Your task to perform on an android device: Open notification settings Image 0: 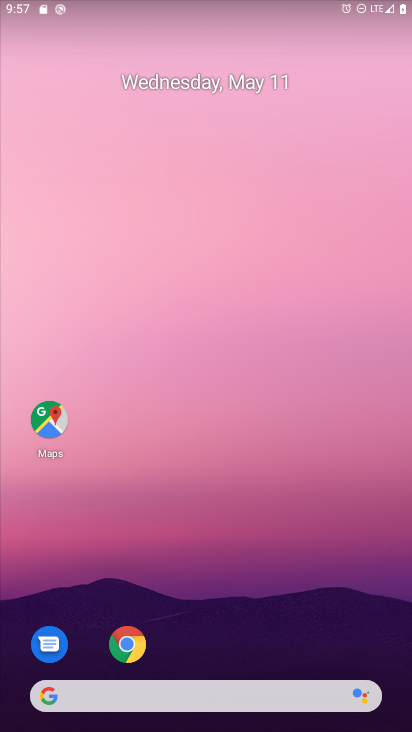
Step 0: drag from (218, 551) to (141, 83)
Your task to perform on an android device: Open notification settings Image 1: 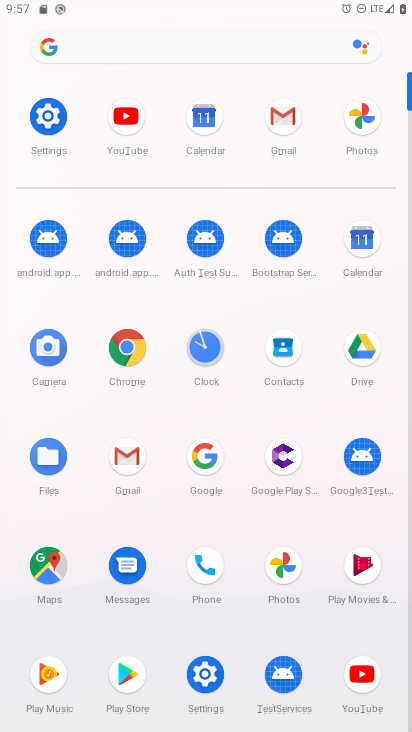
Step 1: click (50, 106)
Your task to perform on an android device: Open notification settings Image 2: 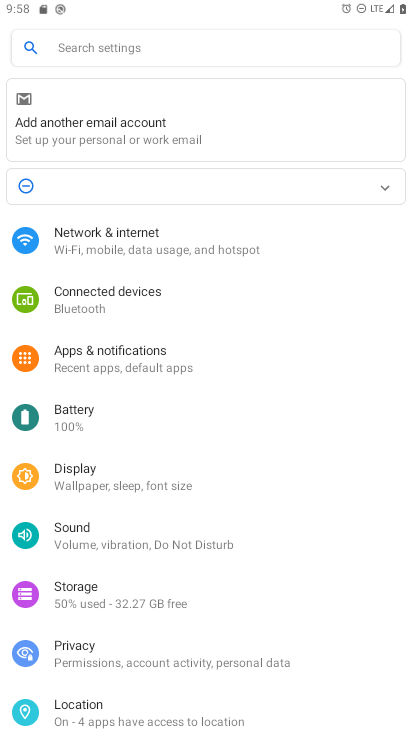
Step 2: click (113, 345)
Your task to perform on an android device: Open notification settings Image 3: 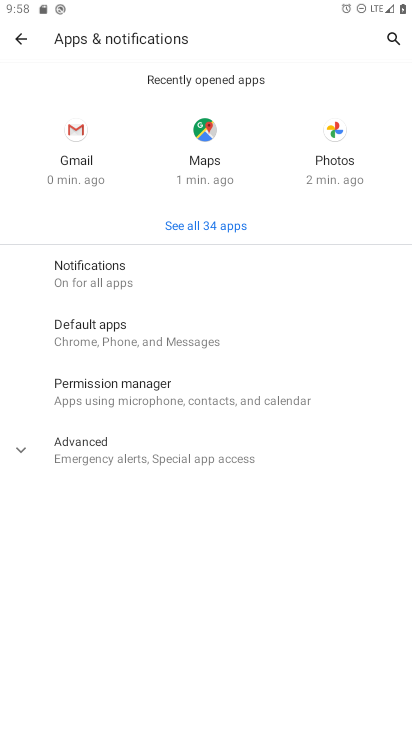
Step 3: click (95, 263)
Your task to perform on an android device: Open notification settings Image 4: 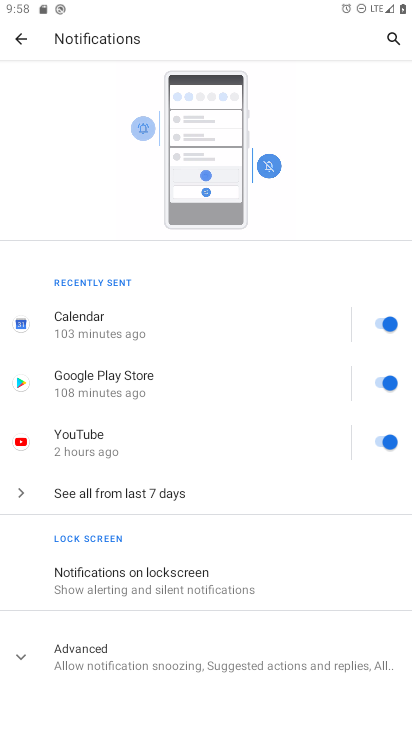
Step 4: task complete